Your task to perform on an android device: set default search engine in the chrome app Image 0: 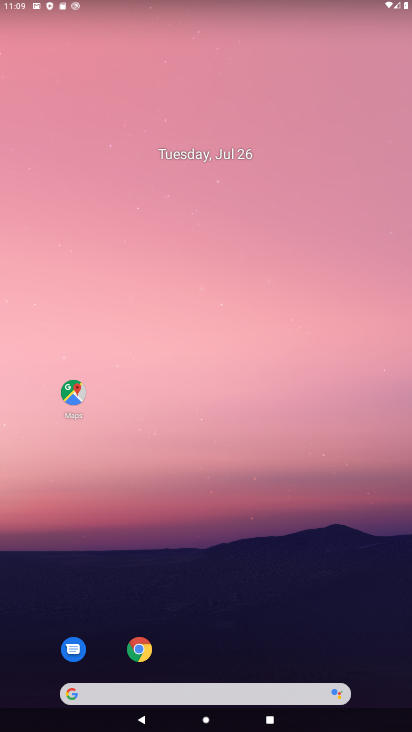
Step 0: drag from (210, 687) to (176, 178)
Your task to perform on an android device: set default search engine in the chrome app Image 1: 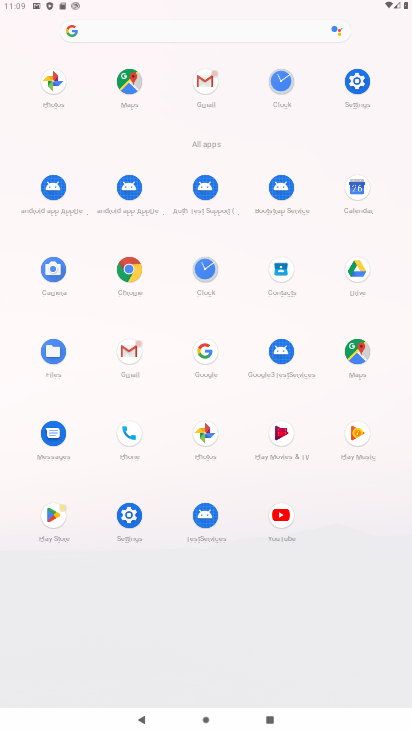
Step 1: click (124, 261)
Your task to perform on an android device: set default search engine in the chrome app Image 2: 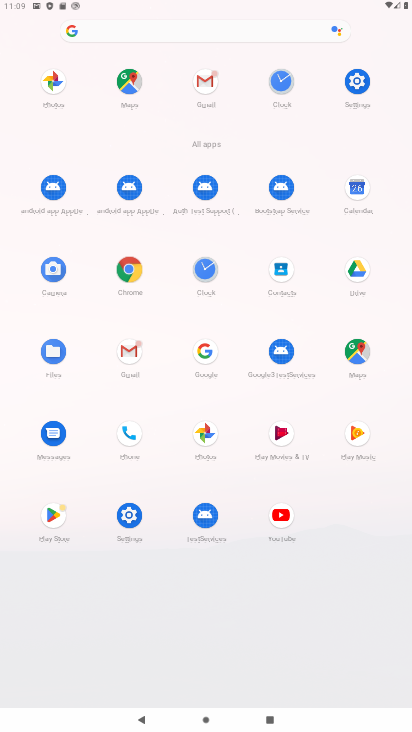
Step 2: click (126, 259)
Your task to perform on an android device: set default search engine in the chrome app Image 3: 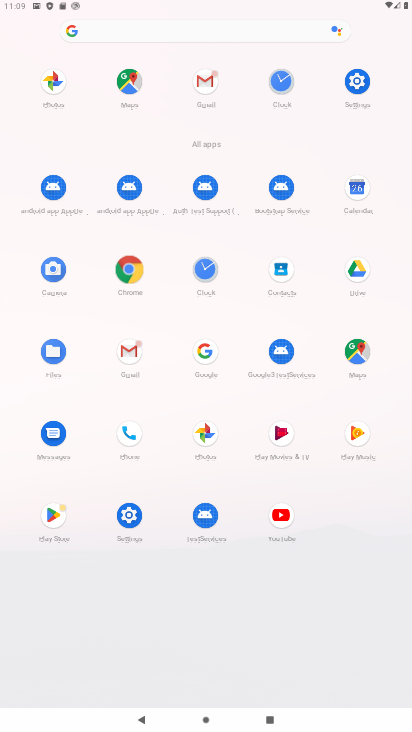
Step 3: click (128, 257)
Your task to perform on an android device: set default search engine in the chrome app Image 4: 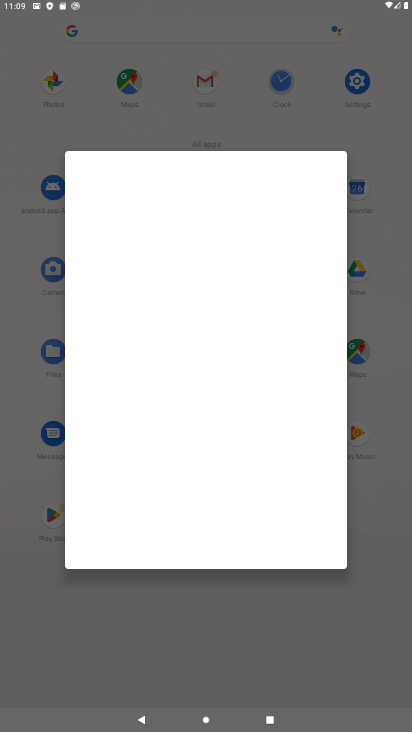
Step 4: drag from (158, 584) to (162, 182)
Your task to perform on an android device: set default search engine in the chrome app Image 5: 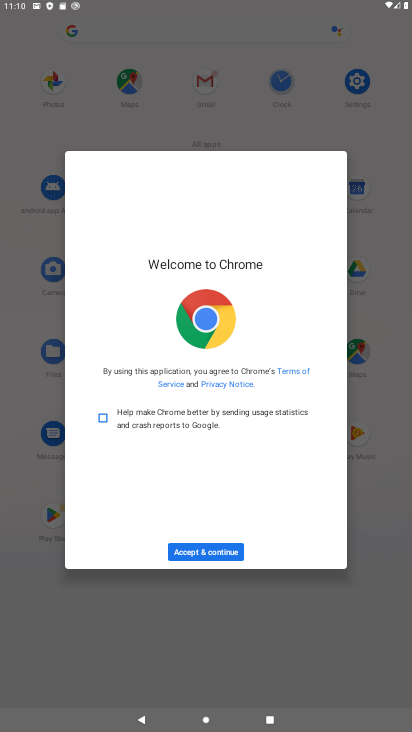
Step 5: drag from (207, 574) to (179, 268)
Your task to perform on an android device: set default search engine in the chrome app Image 6: 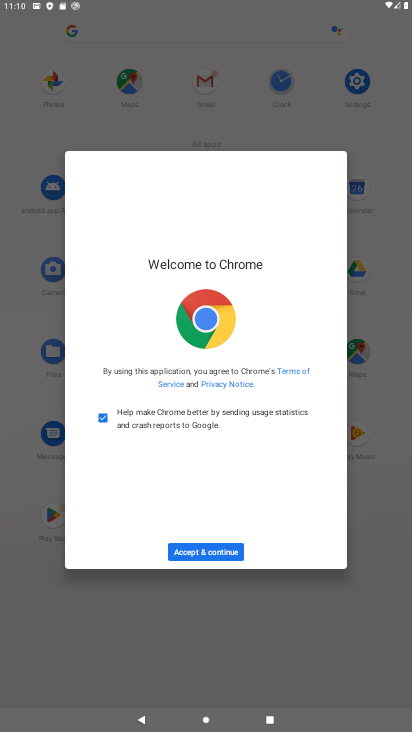
Step 6: click (225, 547)
Your task to perform on an android device: set default search engine in the chrome app Image 7: 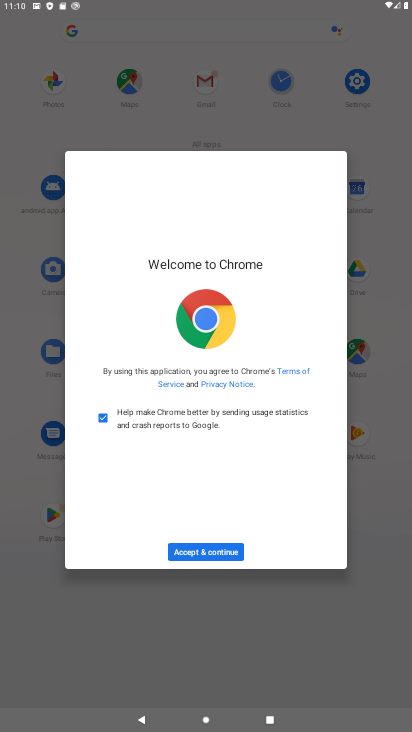
Step 7: click (224, 548)
Your task to perform on an android device: set default search engine in the chrome app Image 8: 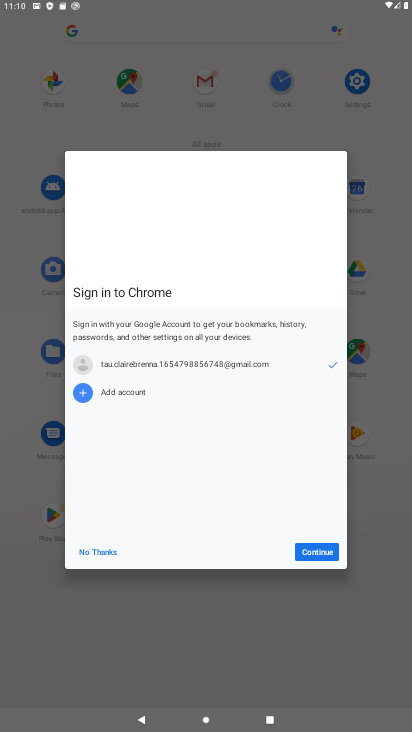
Step 8: click (95, 540)
Your task to perform on an android device: set default search engine in the chrome app Image 9: 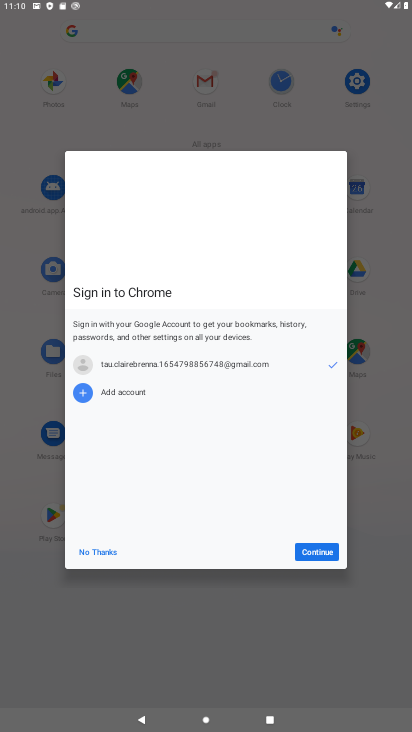
Step 9: click (98, 547)
Your task to perform on an android device: set default search engine in the chrome app Image 10: 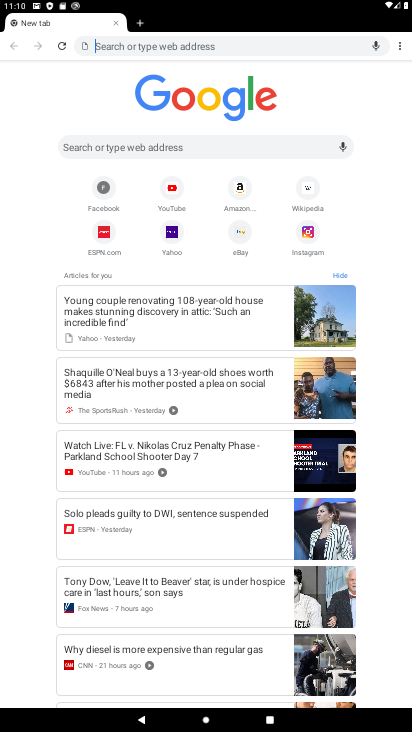
Step 10: click (397, 43)
Your task to perform on an android device: set default search engine in the chrome app Image 11: 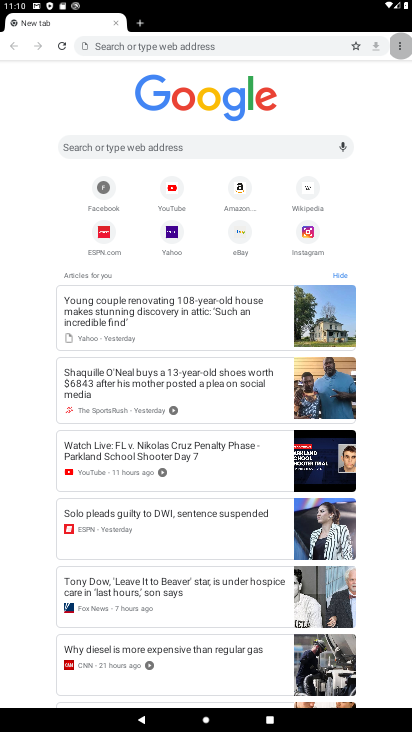
Step 11: click (397, 43)
Your task to perform on an android device: set default search engine in the chrome app Image 12: 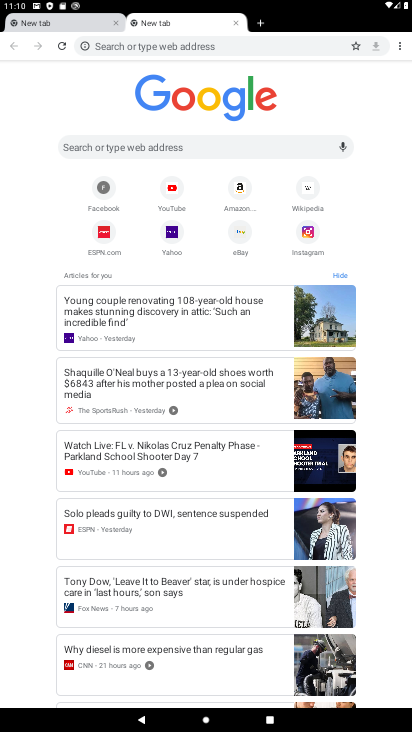
Step 12: click (397, 42)
Your task to perform on an android device: set default search engine in the chrome app Image 13: 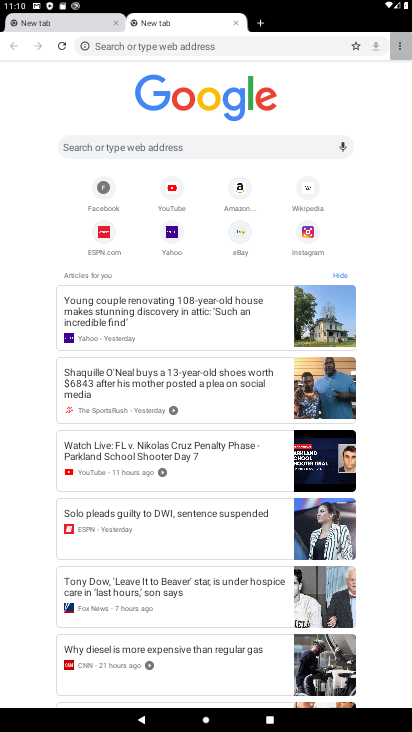
Step 13: click (399, 39)
Your task to perform on an android device: set default search engine in the chrome app Image 14: 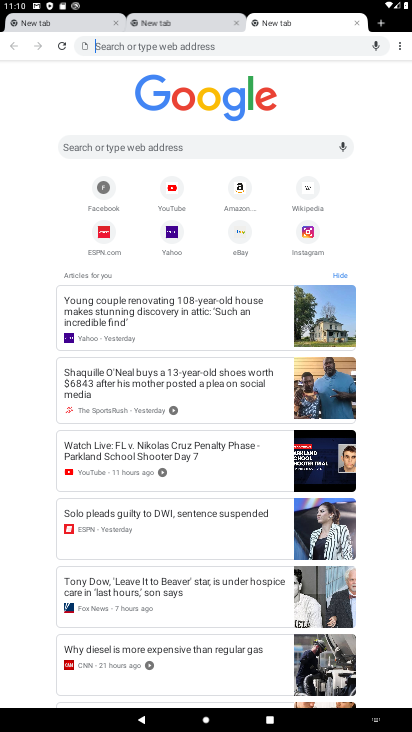
Step 14: click (354, 18)
Your task to perform on an android device: set default search engine in the chrome app Image 15: 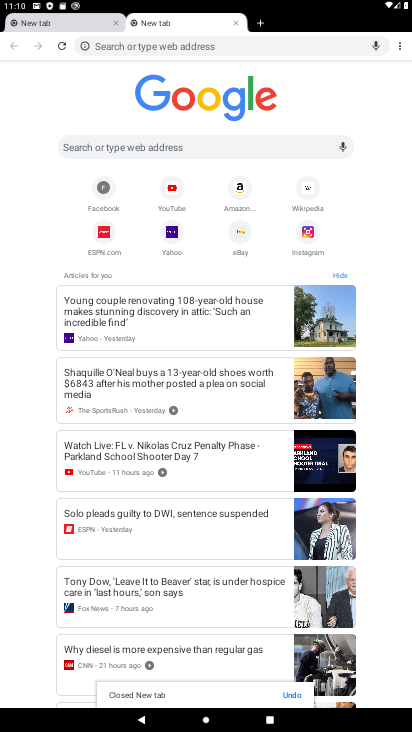
Step 15: drag from (398, 50) to (311, 200)
Your task to perform on an android device: set default search engine in the chrome app Image 16: 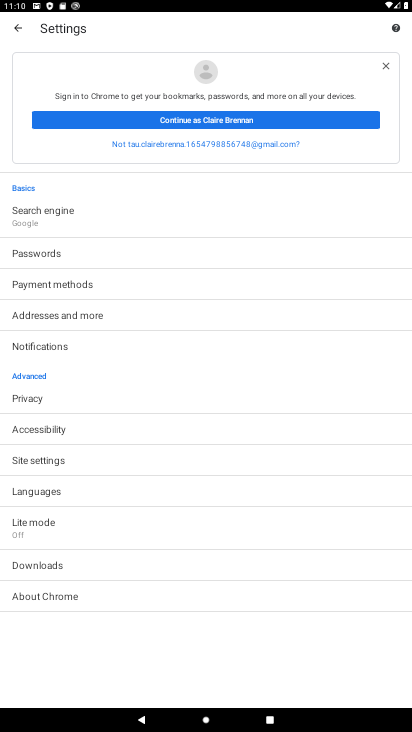
Step 16: click (17, 216)
Your task to perform on an android device: set default search engine in the chrome app Image 17: 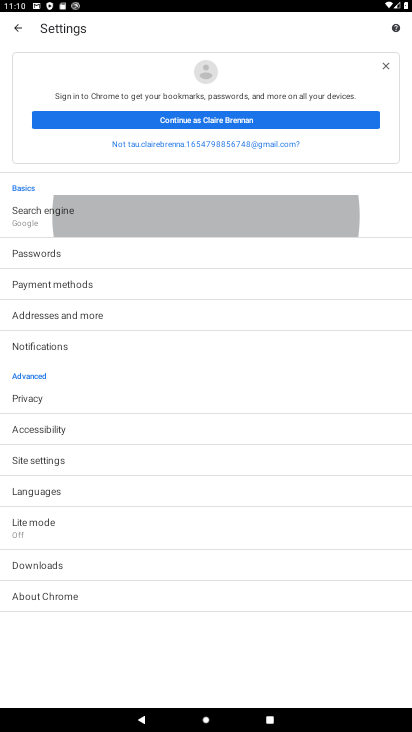
Step 17: click (17, 216)
Your task to perform on an android device: set default search engine in the chrome app Image 18: 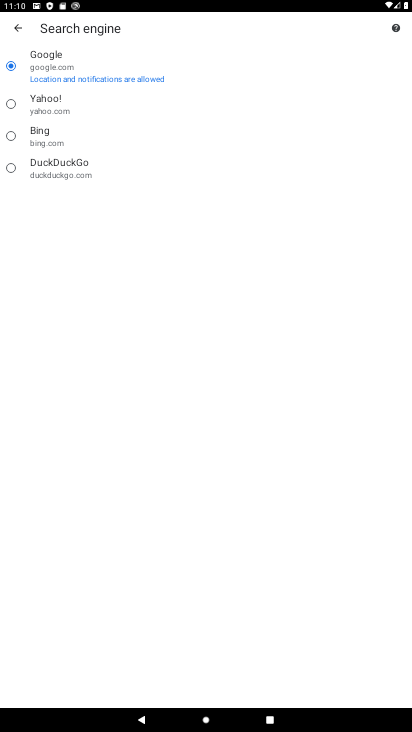
Step 18: click (2, 103)
Your task to perform on an android device: set default search engine in the chrome app Image 19: 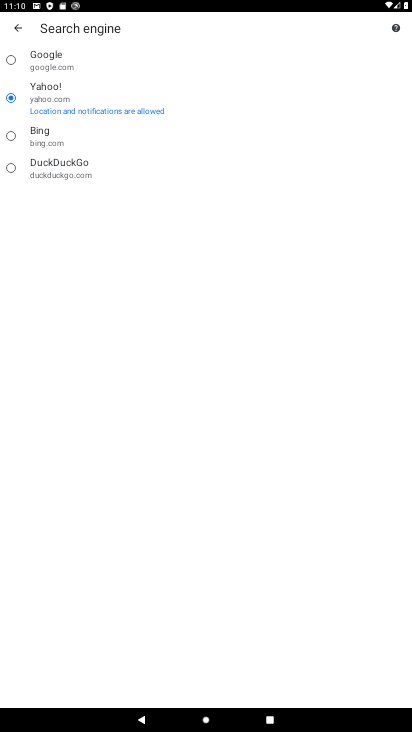
Step 19: task complete